Your task to perform on an android device: turn off airplane mode Image 0: 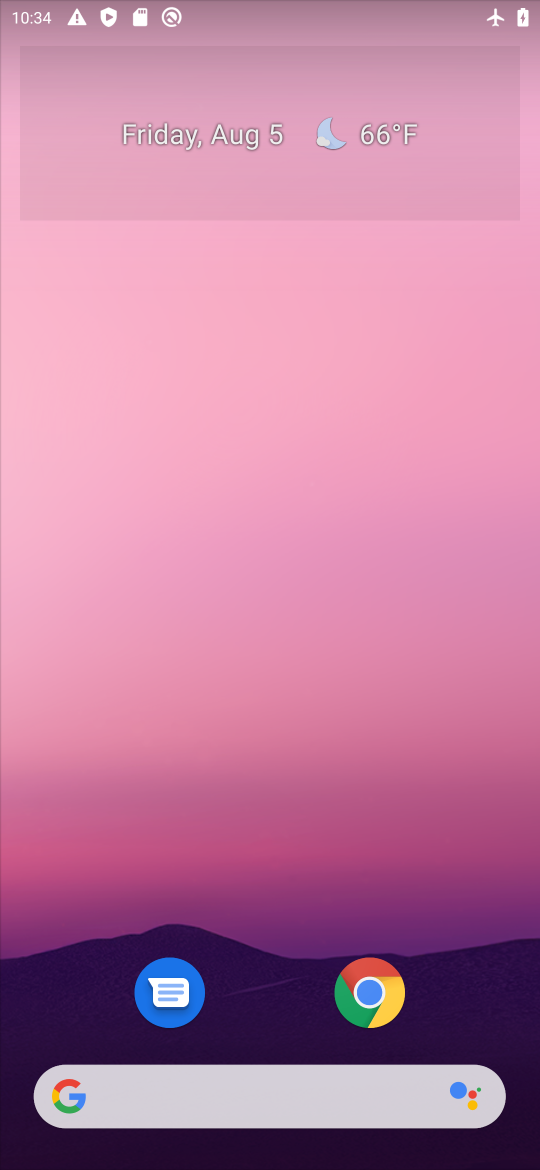
Step 0: drag from (178, 685) to (160, 326)
Your task to perform on an android device: turn off airplane mode Image 1: 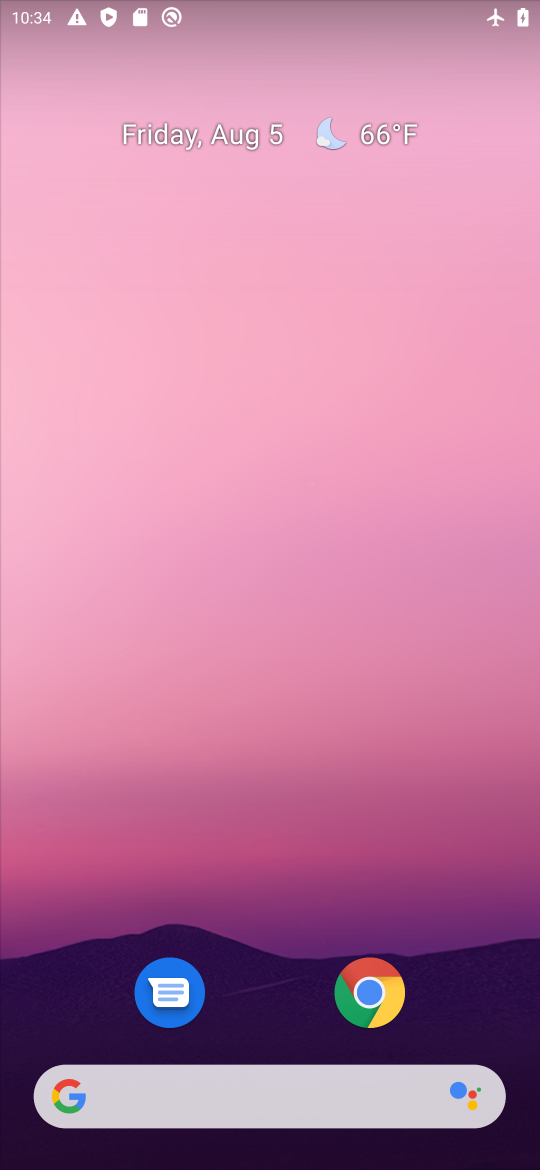
Step 1: drag from (257, 997) to (336, 349)
Your task to perform on an android device: turn off airplane mode Image 2: 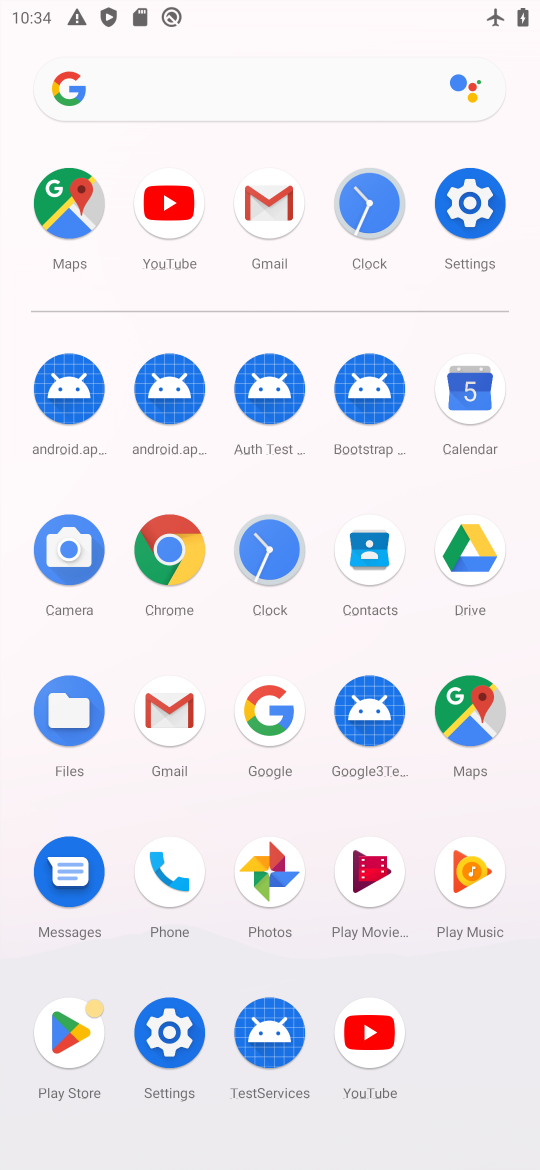
Step 2: click (470, 235)
Your task to perform on an android device: turn off airplane mode Image 3: 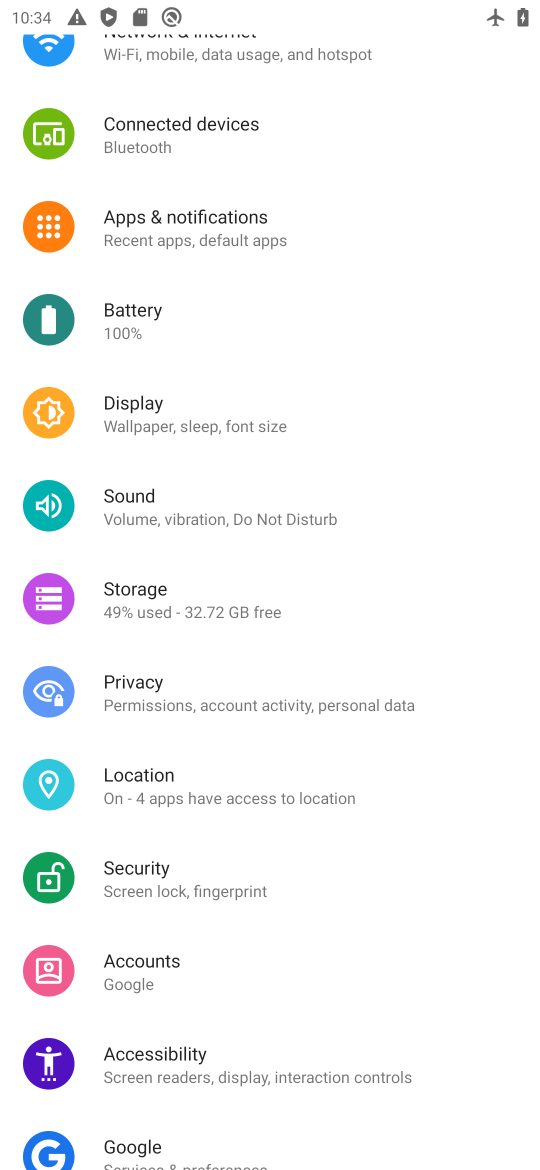
Step 3: drag from (298, 500) to (223, 884)
Your task to perform on an android device: turn off airplane mode Image 4: 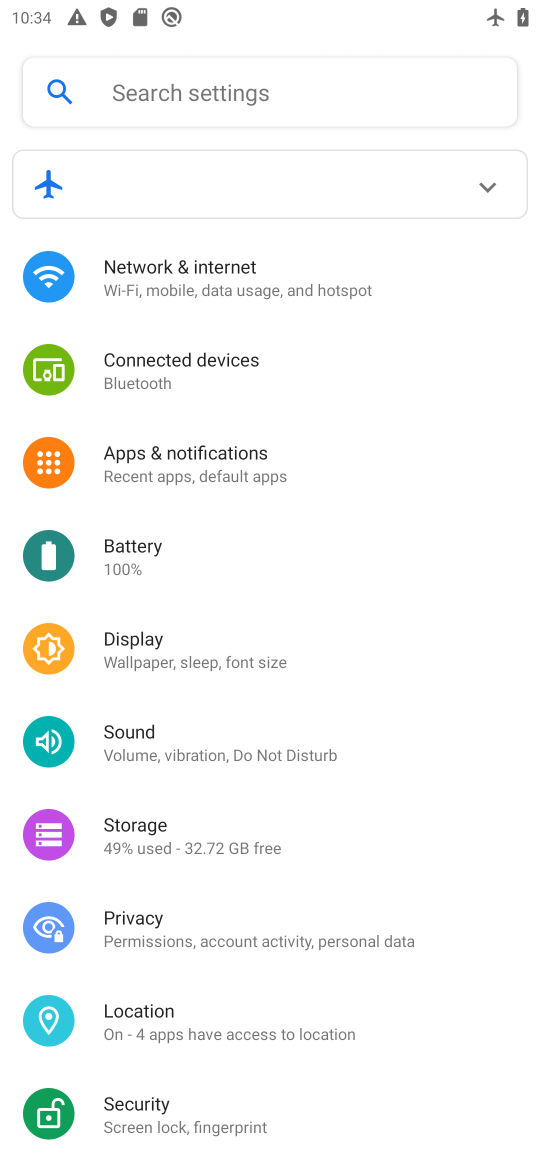
Step 4: click (256, 282)
Your task to perform on an android device: turn off airplane mode Image 5: 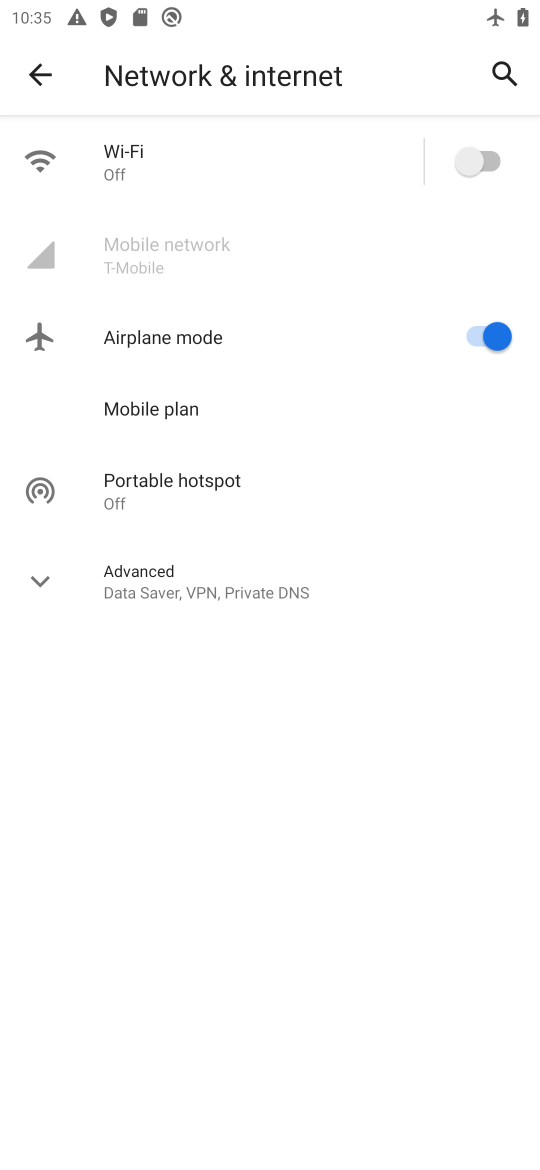
Step 5: click (394, 345)
Your task to perform on an android device: turn off airplane mode Image 6: 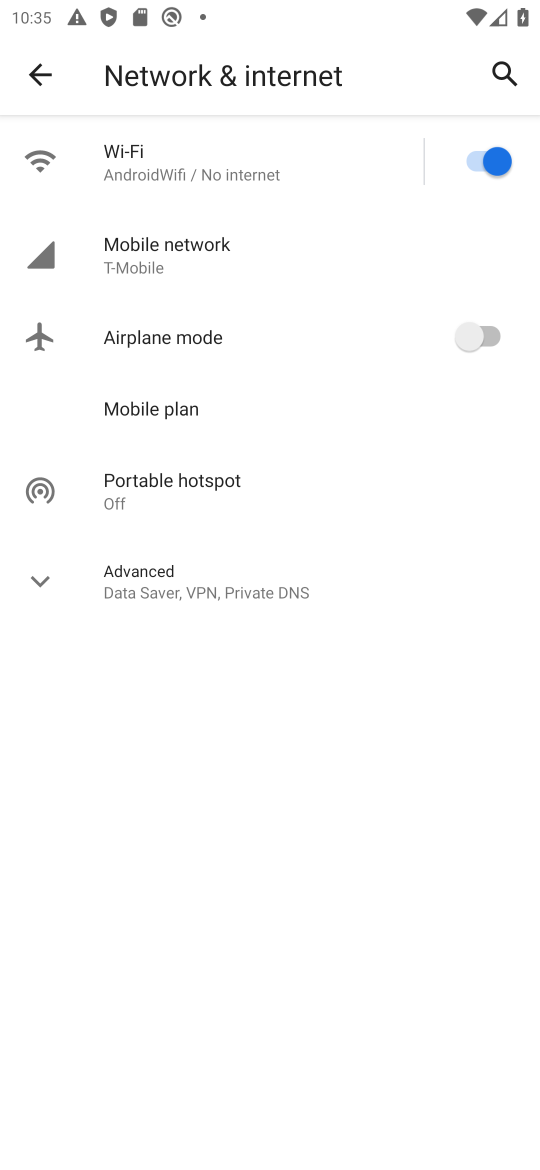
Step 6: task complete